Your task to perform on an android device: Search for good Italian restaurants Image 0: 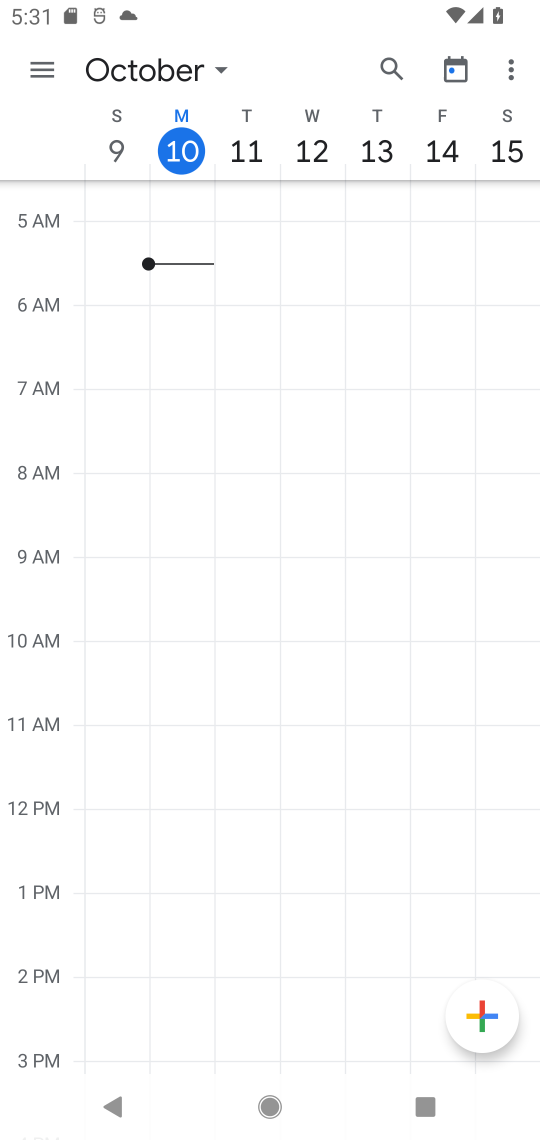
Step 0: press home button
Your task to perform on an android device: Search for good Italian restaurants Image 1: 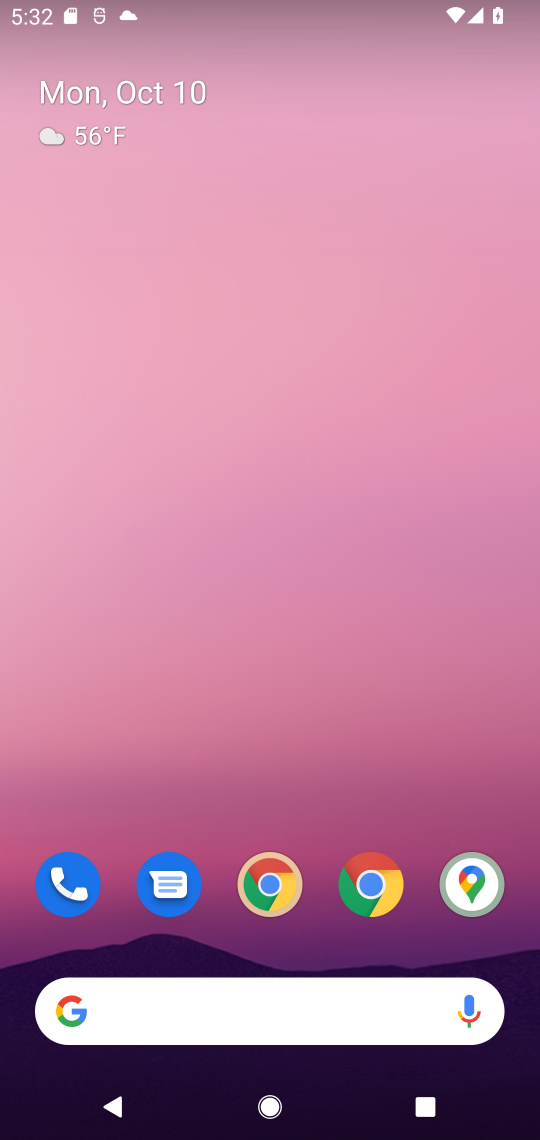
Step 1: click (374, 896)
Your task to perform on an android device: Search for good Italian restaurants Image 2: 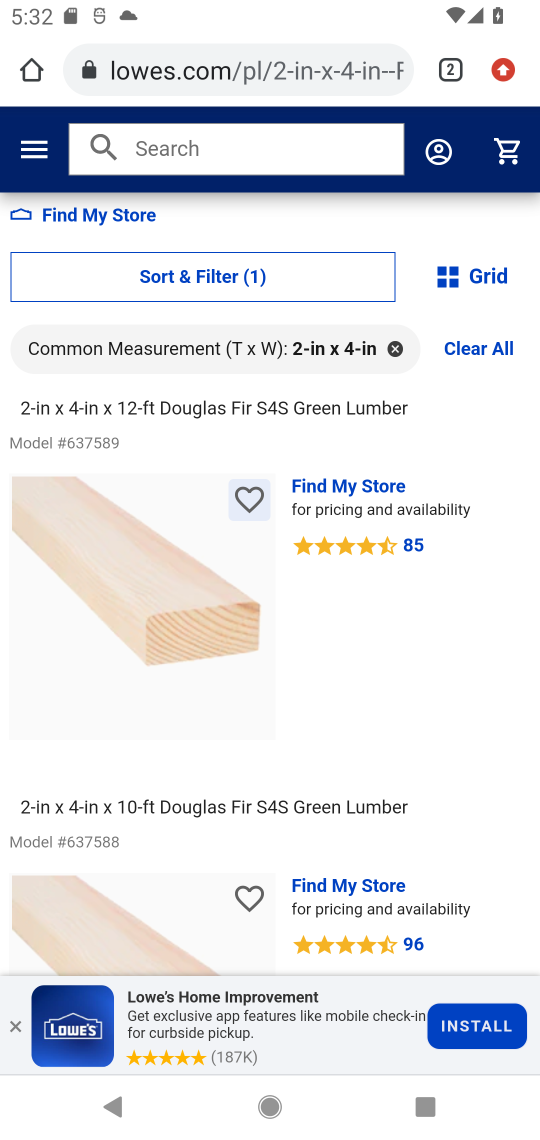
Step 2: click (266, 77)
Your task to perform on an android device: Search for good Italian restaurants Image 3: 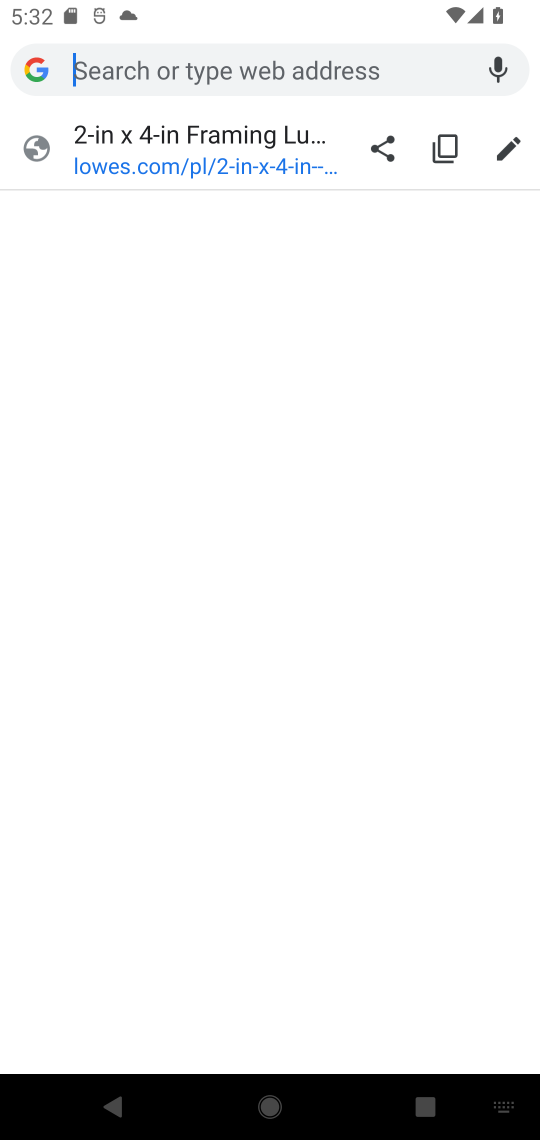
Step 3: type "good Italian restaurants"
Your task to perform on an android device: Search for good Italian restaurants Image 4: 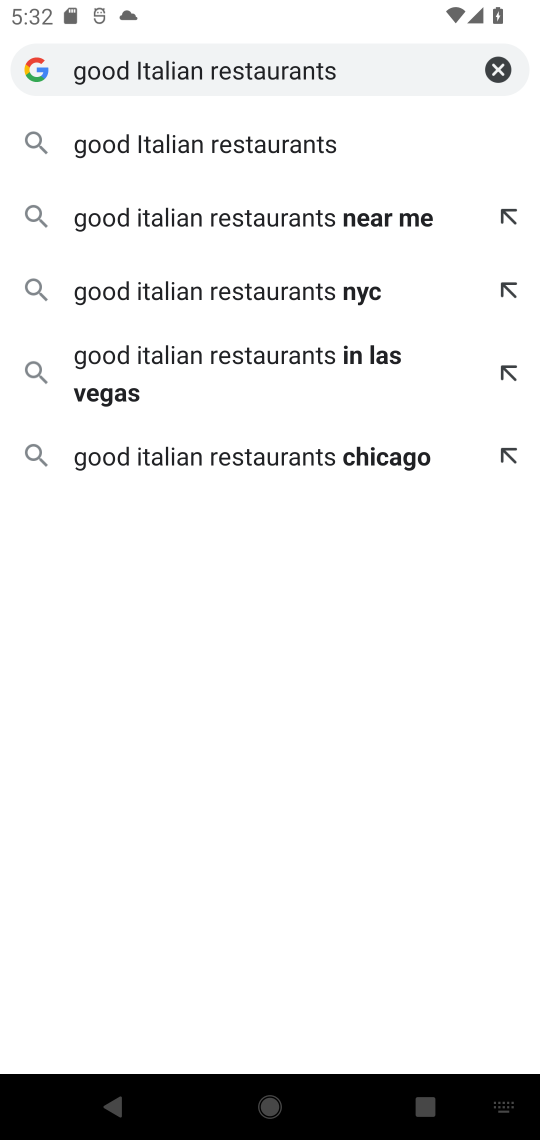
Step 4: click (217, 149)
Your task to perform on an android device: Search for good Italian restaurants Image 5: 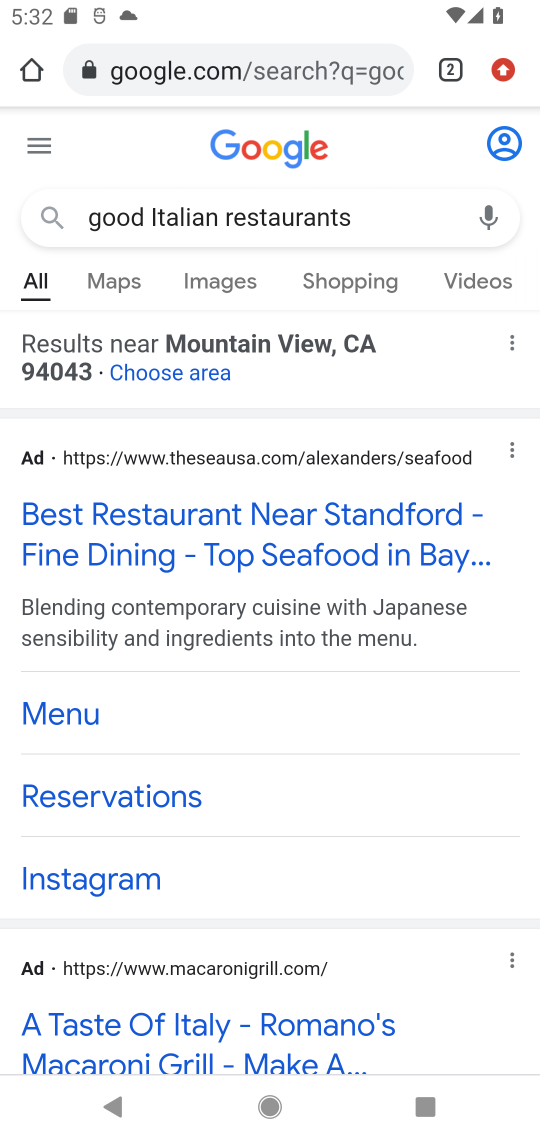
Step 5: click (250, 537)
Your task to perform on an android device: Search for good Italian restaurants Image 6: 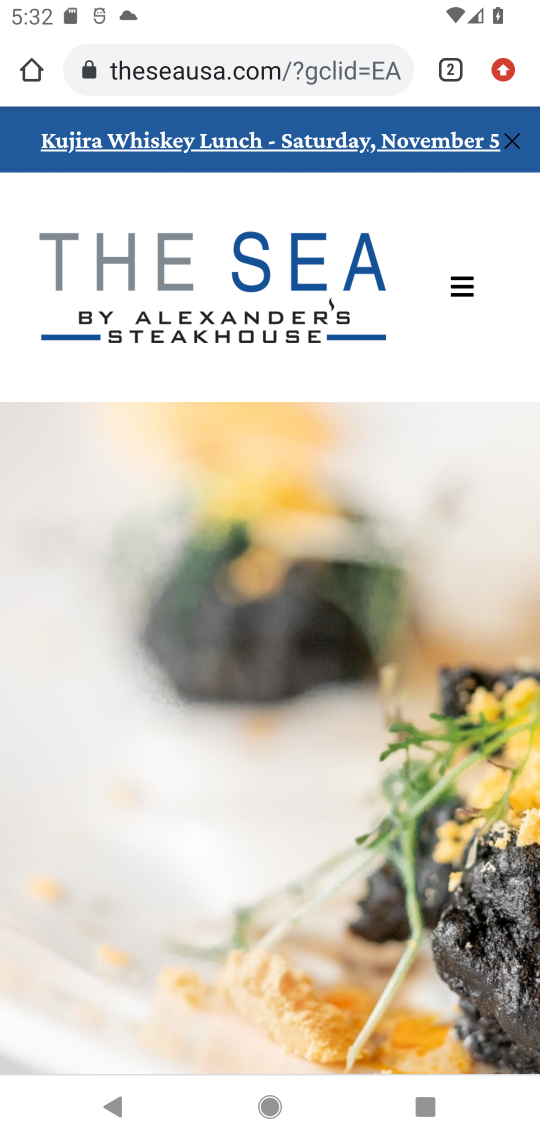
Step 6: task complete